Your task to perform on an android device: open wifi settings Image 0: 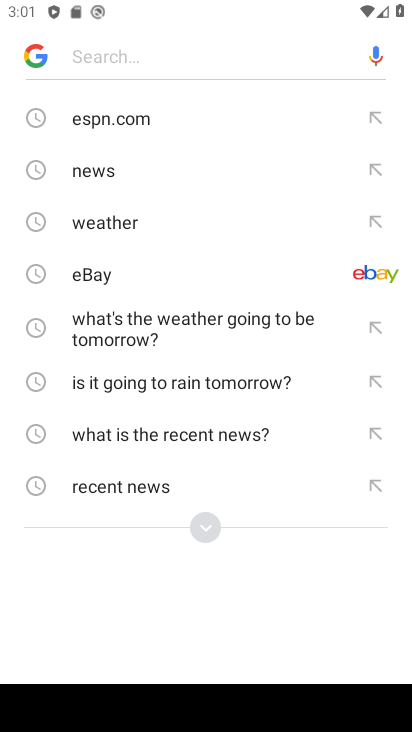
Step 0: press back button
Your task to perform on an android device: open wifi settings Image 1: 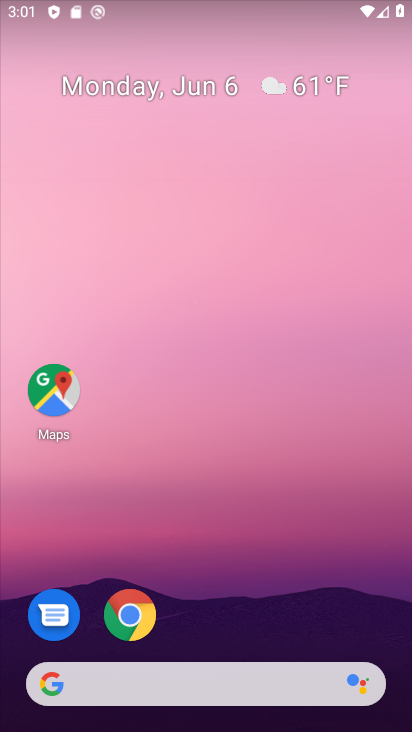
Step 1: drag from (206, 649) to (189, 5)
Your task to perform on an android device: open wifi settings Image 2: 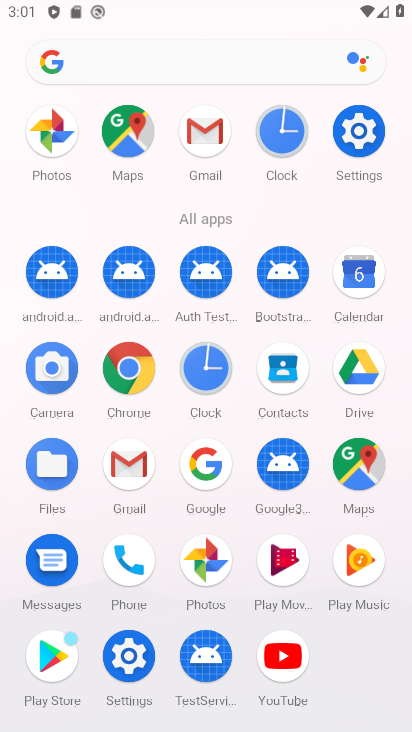
Step 2: click (363, 117)
Your task to perform on an android device: open wifi settings Image 3: 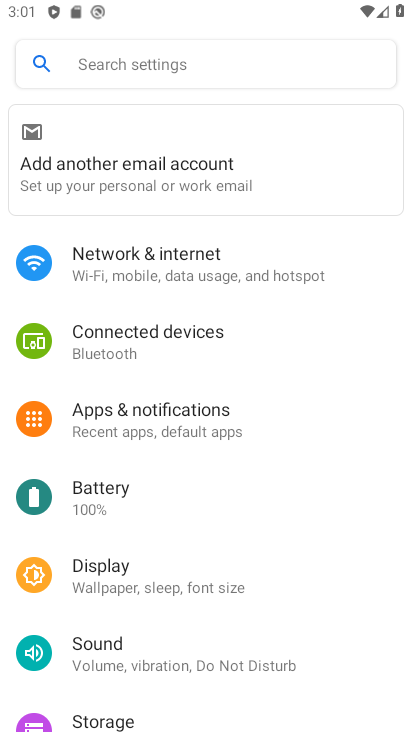
Step 3: click (150, 266)
Your task to perform on an android device: open wifi settings Image 4: 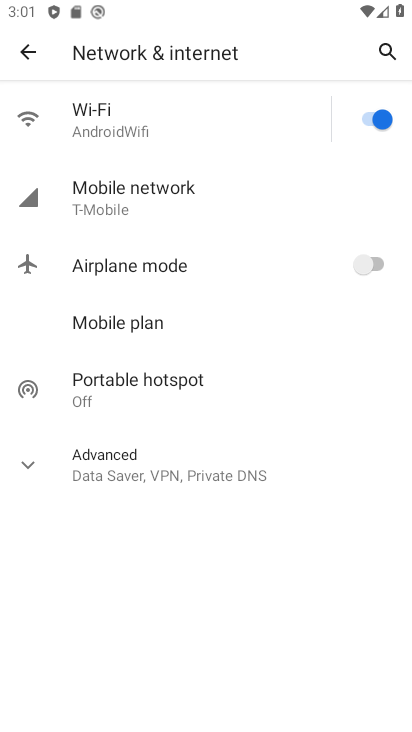
Step 4: click (194, 107)
Your task to perform on an android device: open wifi settings Image 5: 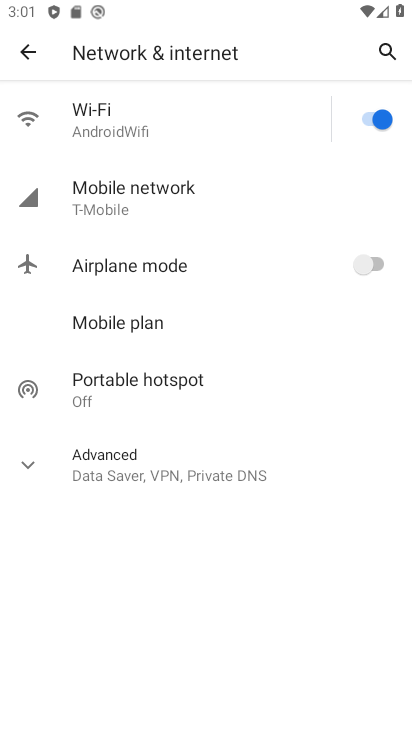
Step 5: task complete